Your task to perform on an android device: Search for Italian restaurants on Maps Image 0: 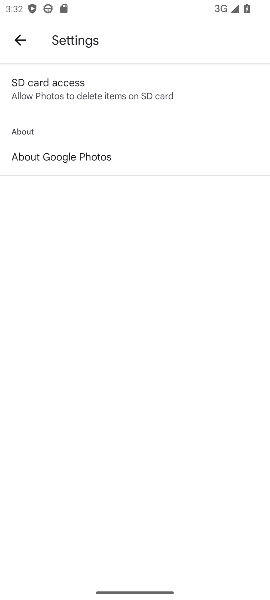
Step 0: press home button
Your task to perform on an android device: Search for Italian restaurants on Maps Image 1: 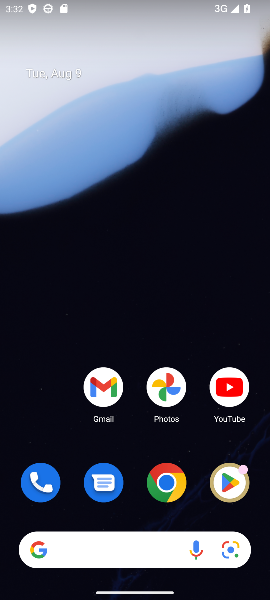
Step 1: drag from (127, 437) to (139, 76)
Your task to perform on an android device: Search for Italian restaurants on Maps Image 2: 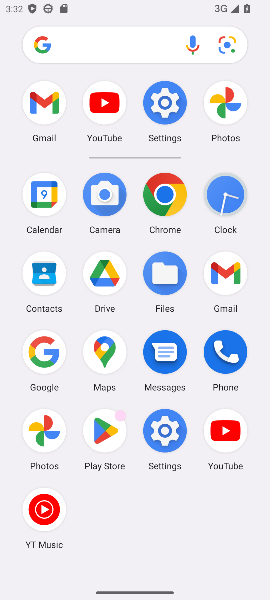
Step 2: click (109, 357)
Your task to perform on an android device: Search for Italian restaurants on Maps Image 3: 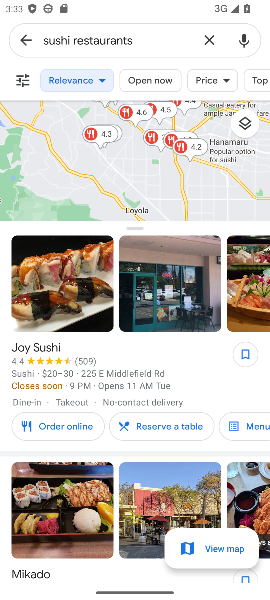
Step 3: click (207, 36)
Your task to perform on an android device: Search for Italian restaurants on Maps Image 4: 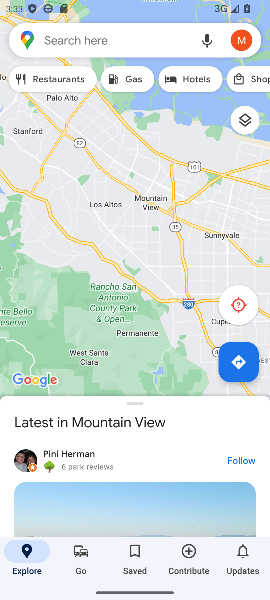
Step 4: click (117, 36)
Your task to perform on an android device: Search for Italian restaurants on Maps Image 5: 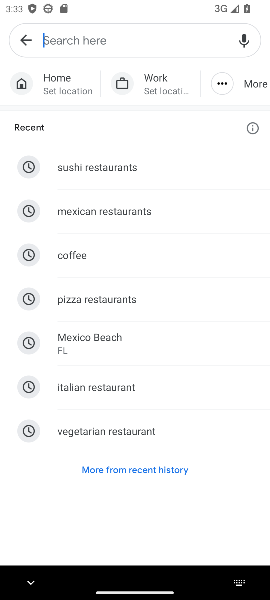
Step 5: click (85, 390)
Your task to perform on an android device: Search for Italian restaurants on Maps Image 6: 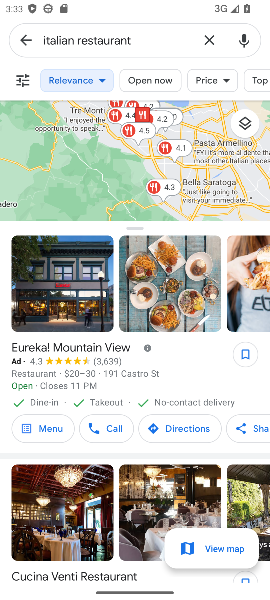
Step 6: task complete